Your task to perform on an android device: Open Google Chrome and open the bookmarks view Image 0: 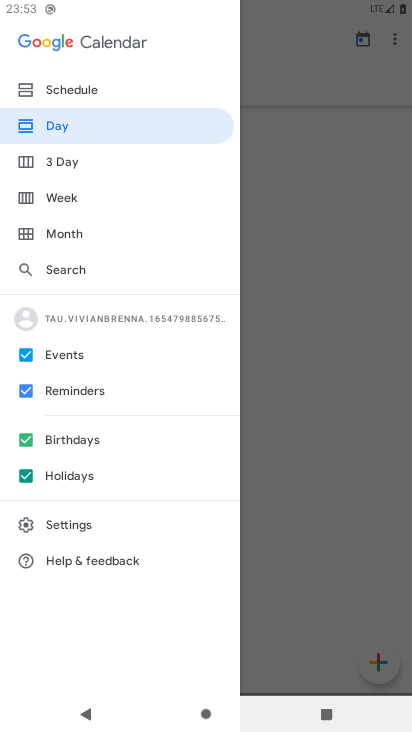
Step 0: press home button
Your task to perform on an android device: Open Google Chrome and open the bookmarks view Image 1: 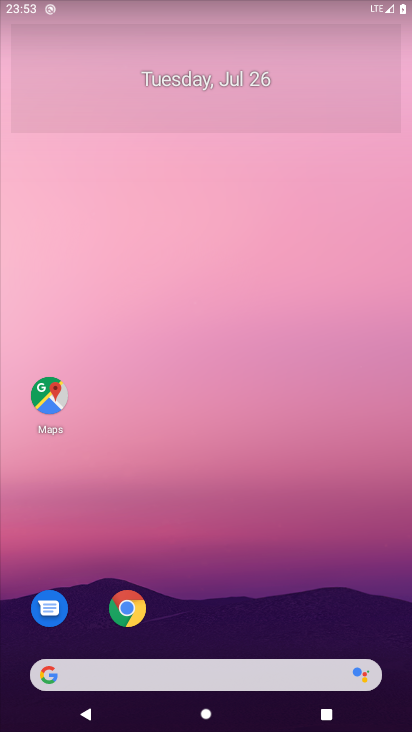
Step 1: click (123, 597)
Your task to perform on an android device: Open Google Chrome and open the bookmarks view Image 2: 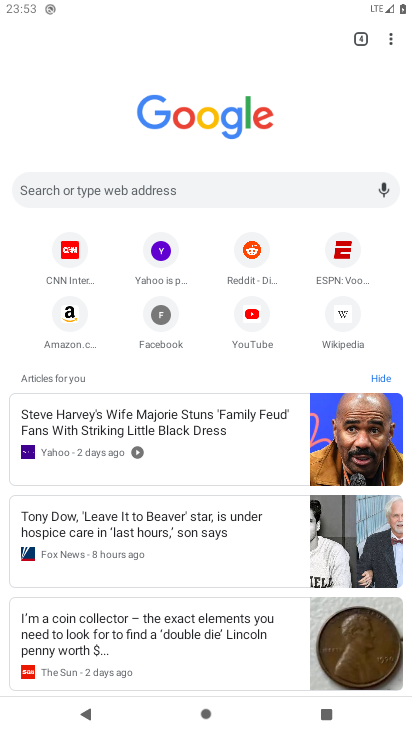
Step 2: task complete